Your task to perform on an android device: Open Chrome and go to the settings page Image 0: 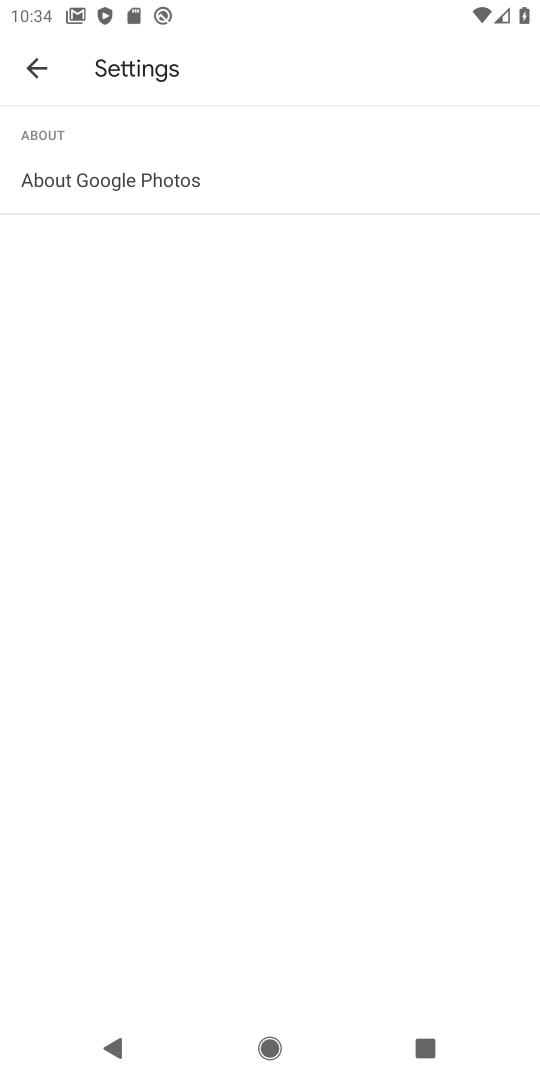
Step 0: press home button
Your task to perform on an android device: Open Chrome and go to the settings page Image 1: 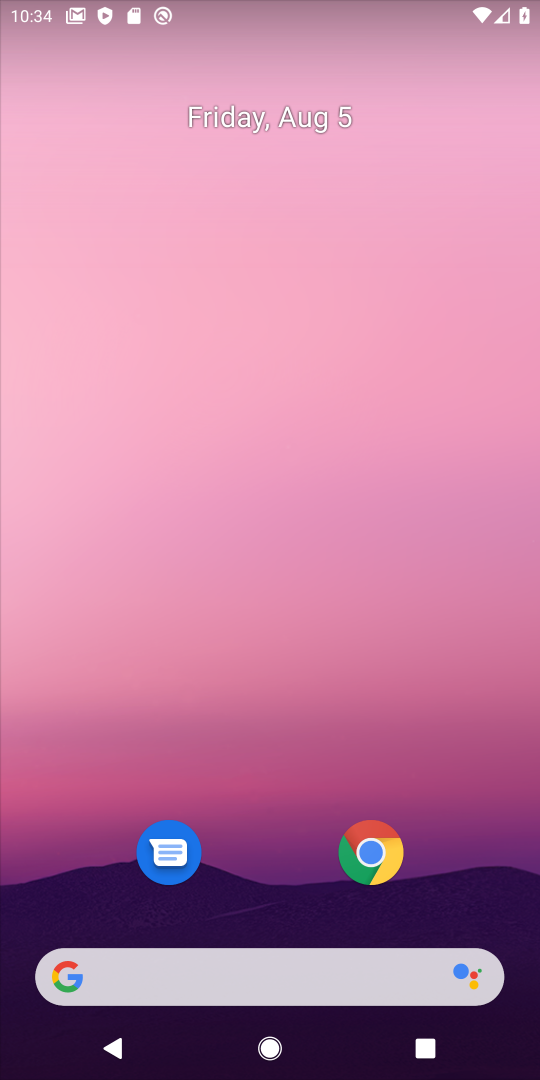
Step 1: click (358, 866)
Your task to perform on an android device: Open Chrome and go to the settings page Image 2: 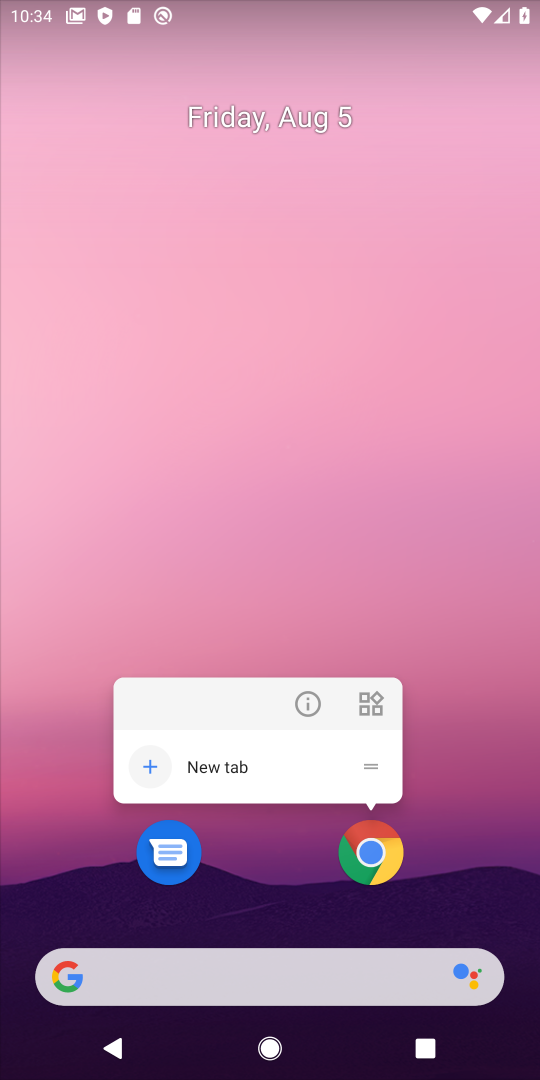
Step 2: click (371, 850)
Your task to perform on an android device: Open Chrome and go to the settings page Image 3: 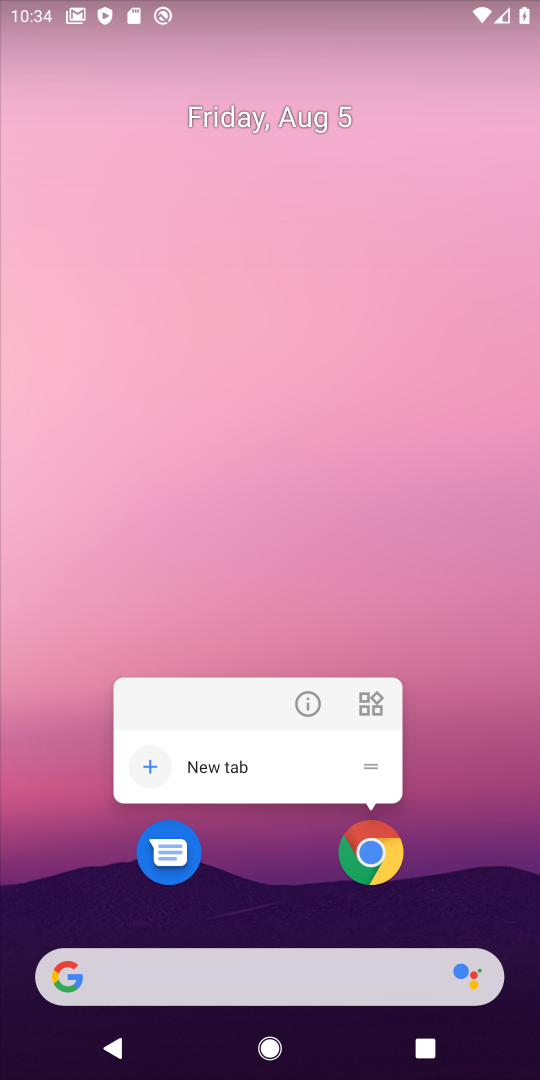
Step 3: click (357, 850)
Your task to perform on an android device: Open Chrome and go to the settings page Image 4: 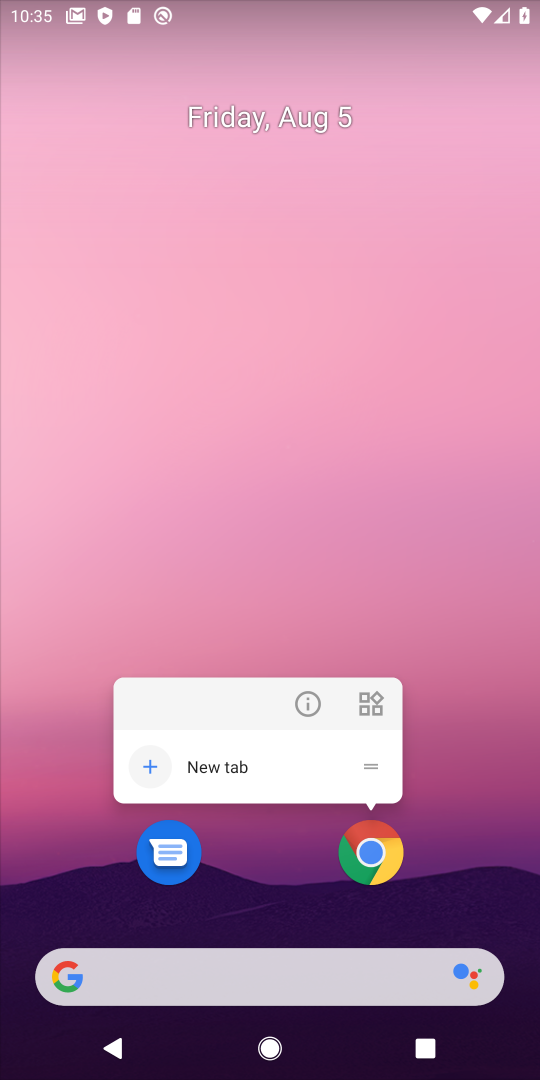
Step 4: click (366, 855)
Your task to perform on an android device: Open Chrome and go to the settings page Image 5: 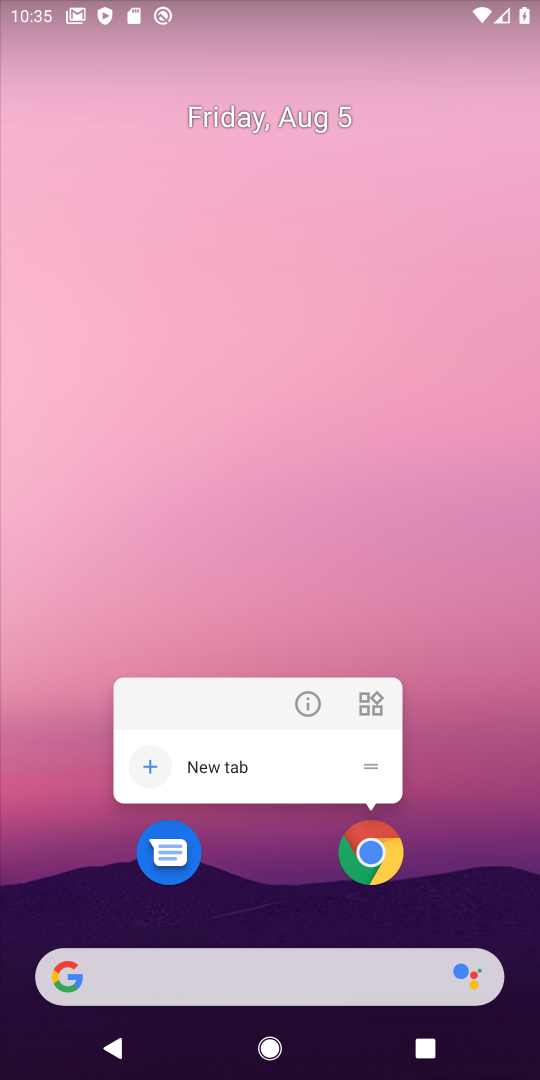
Step 5: click (376, 864)
Your task to perform on an android device: Open Chrome and go to the settings page Image 6: 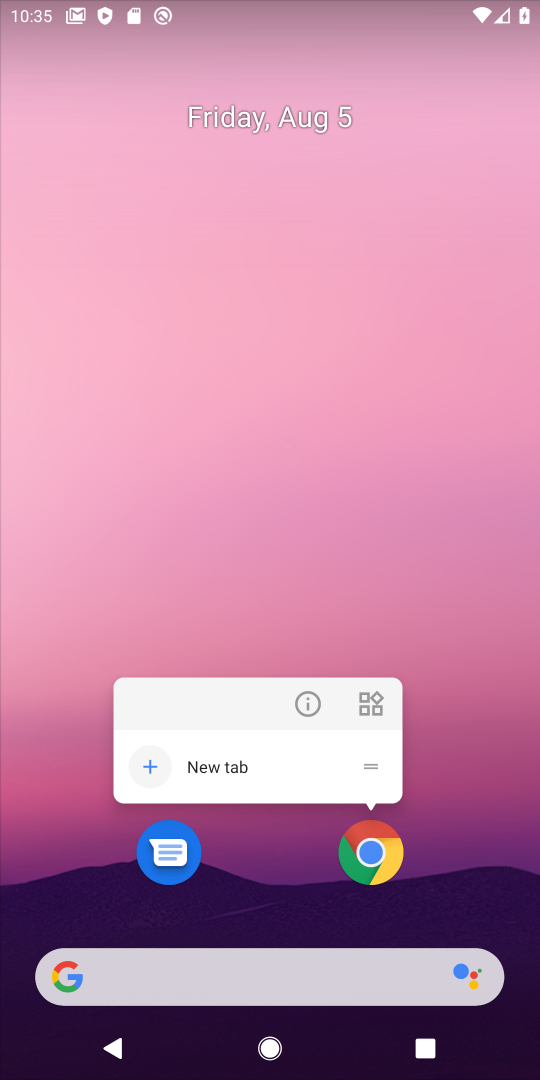
Step 6: click (371, 854)
Your task to perform on an android device: Open Chrome and go to the settings page Image 7: 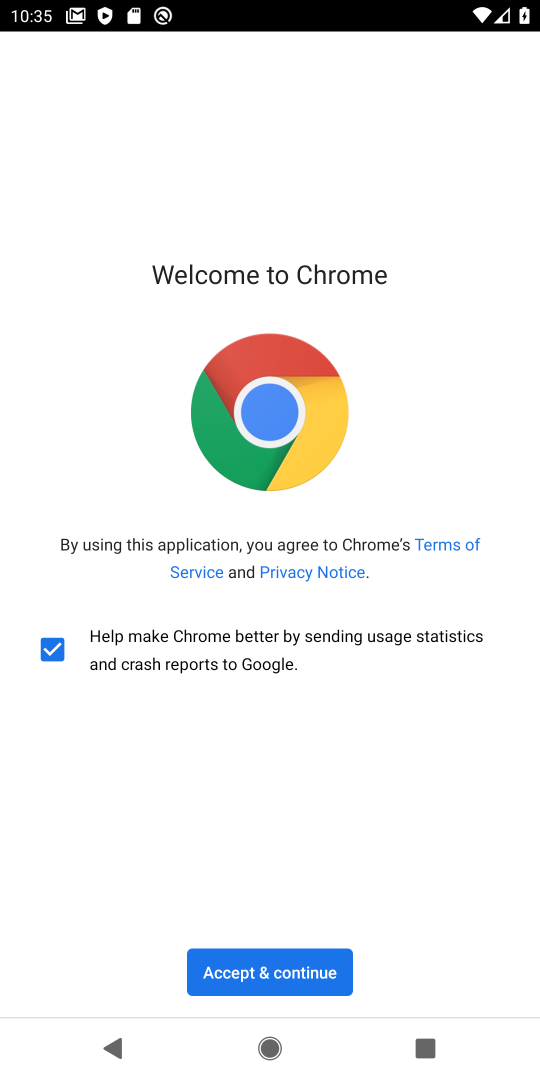
Step 7: click (288, 981)
Your task to perform on an android device: Open Chrome and go to the settings page Image 8: 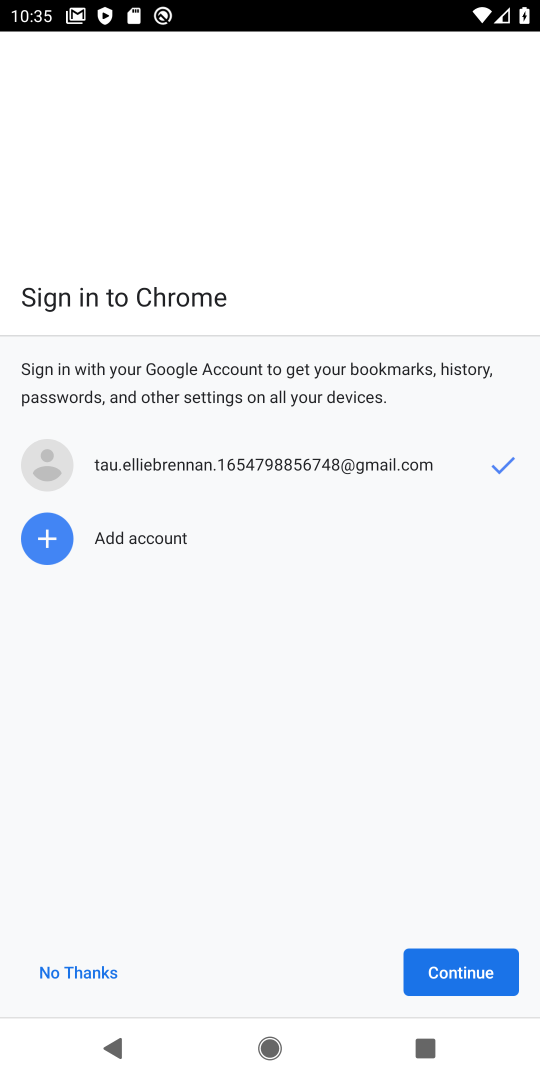
Step 8: click (434, 974)
Your task to perform on an android device: Open Chrome and go to the settings page Image 9: 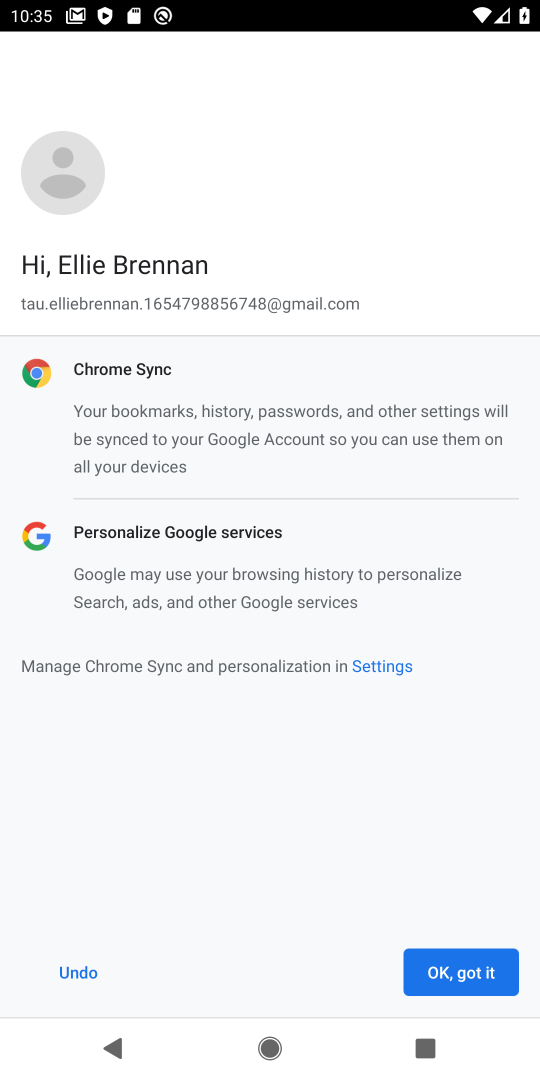
Step 9: click (434, 974)
Your task to perform on an android device: Open Chrome and go to the settings page Image 10: 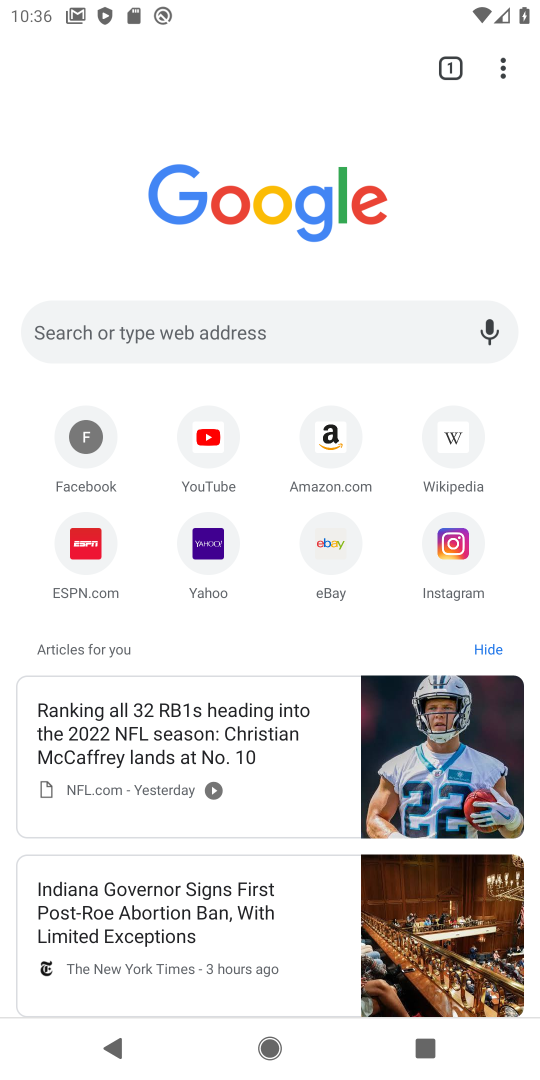
Step 10: click (491, 75)
Your task to perform on an android device: Open Chrome and go to the settings page Image 11: 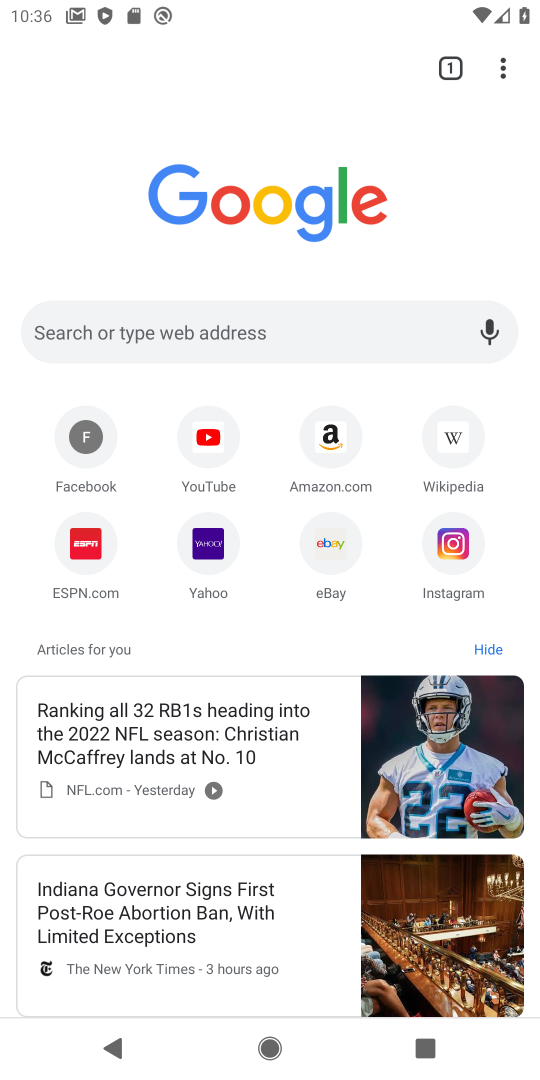
Step 11: click (502, 71)
Your task to perform on an android device: Open Chrome and go to the settings page Image 12: 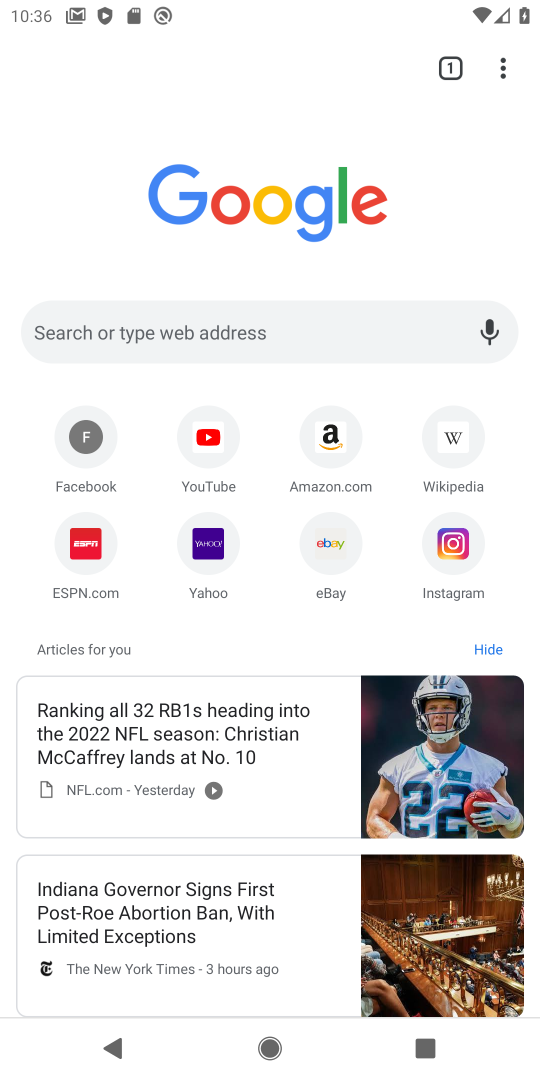
Step 12: click (502, 71)
Your task to perform on an android device: Open Chrome and go to the settings page Image 13: 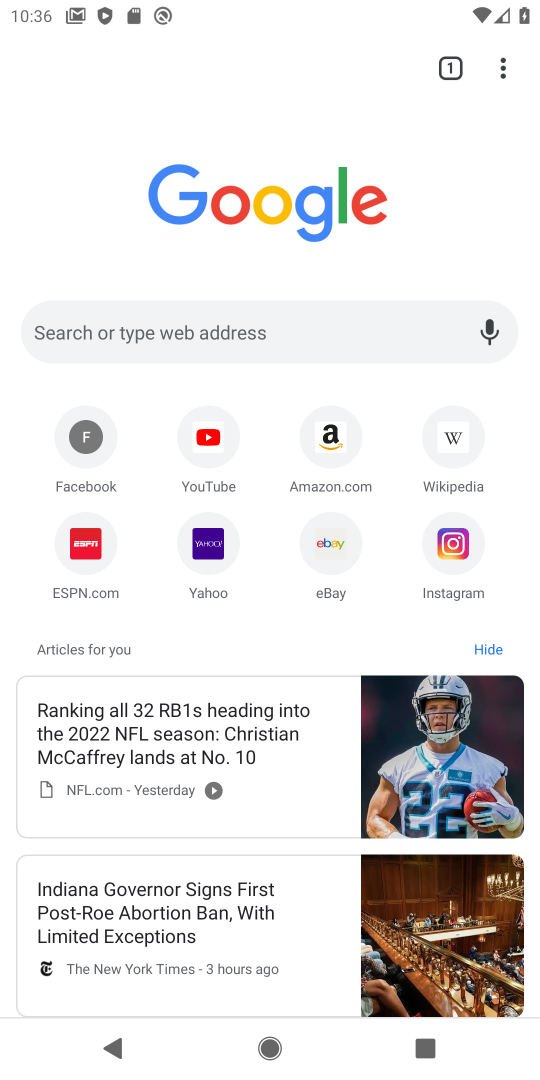
Step 13: click (503, 68)
Your task to perform on an android device: Open Chrome and go to the settings page Image 14: 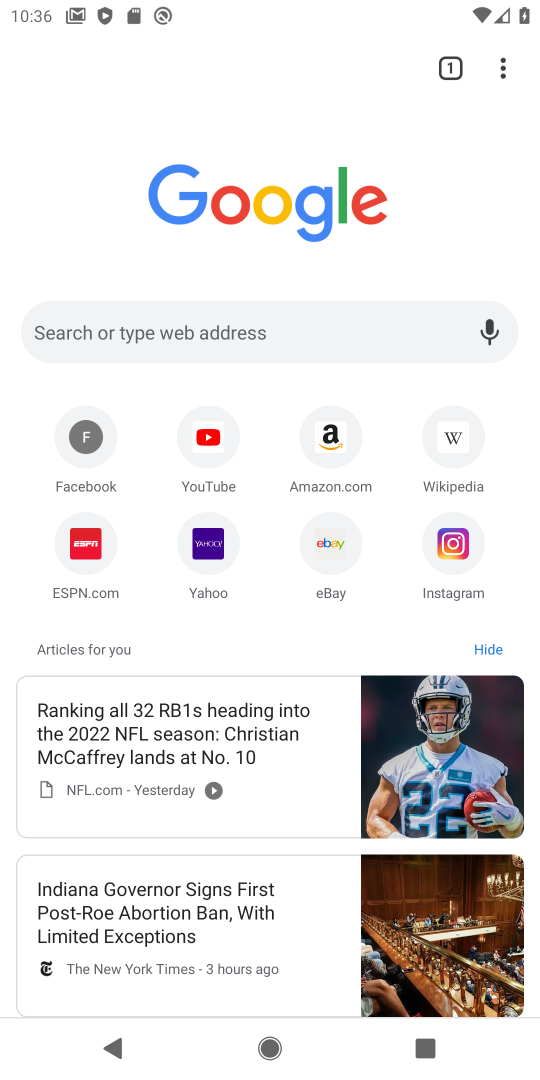
Step 14: click (513, 66)
Your task to perform on an android device: Open Chrome and go to the settings page Image 15: 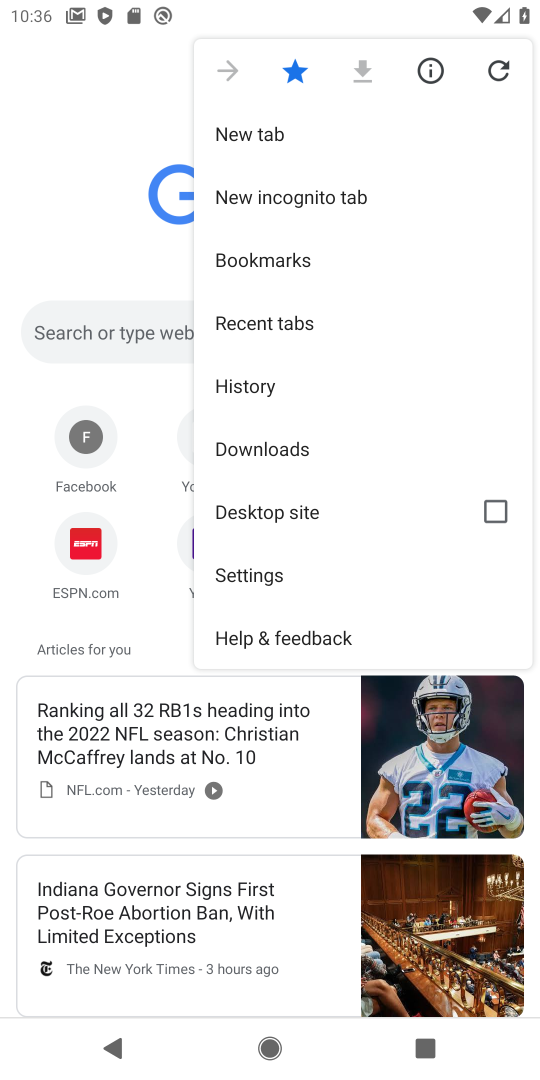
Step 15: click (231, 574)
Your task to perform on an android device: Open Chrome and go to the settings page Image 16: 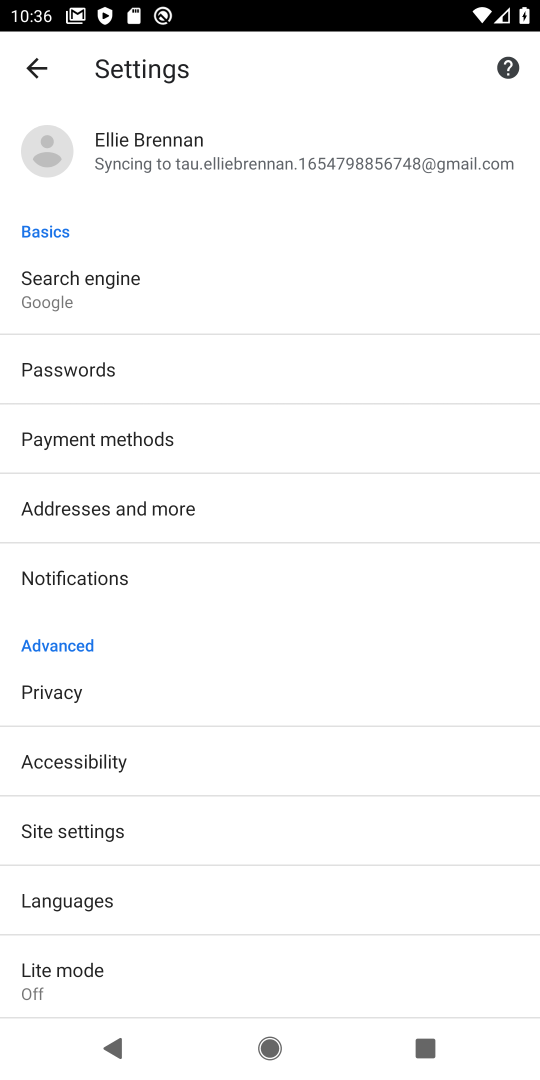
Step 16: task complete